Your task to perform on an android device: find snoozed emails in the gmail app Image 0: 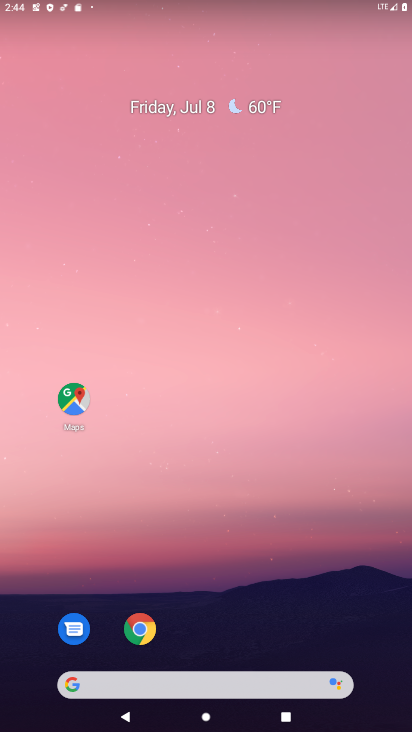
Step 0: drag from (225, 631) to (229, 259)
Your task to perform on an android device: find snoozed emails in the gmail app Image 1: 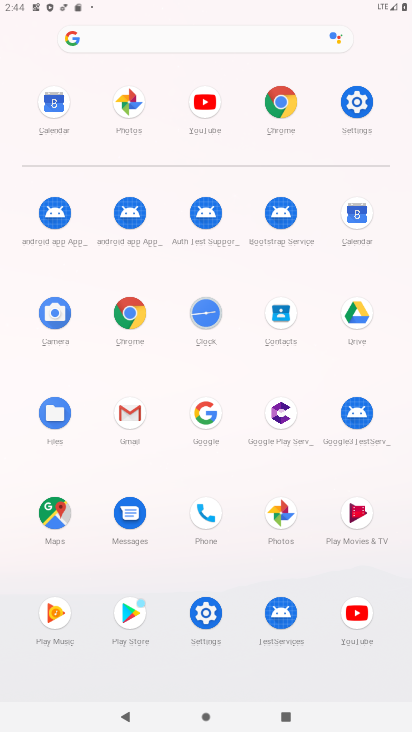
Step 1: click (143, 423)
Your task to perform on an android device: find snoozed emails in the gmail app Image 2: 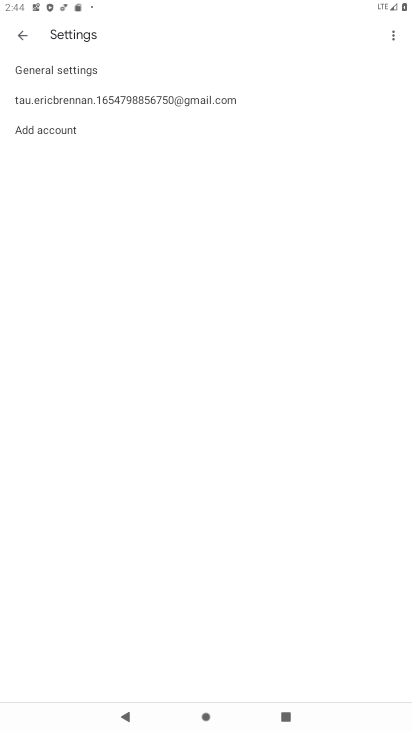
Step 2: click (23, 38)
Your task to perform on an android device: find snoozed emails in the gmail app Image 3: 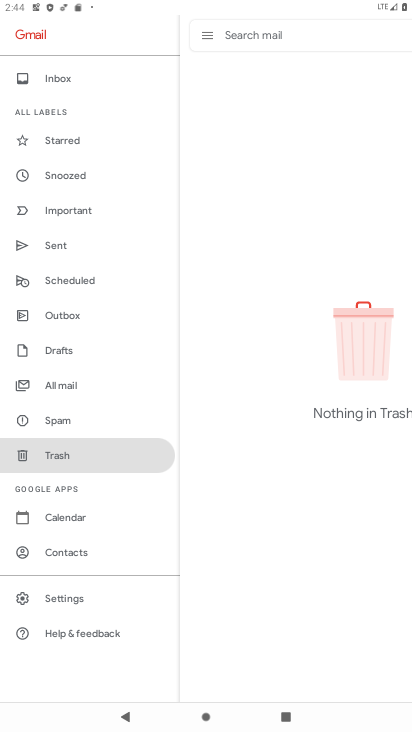
Step 3: click (76, 182)
Your task to perform on an android device: find snoozed emails in the gmail app Image 4: 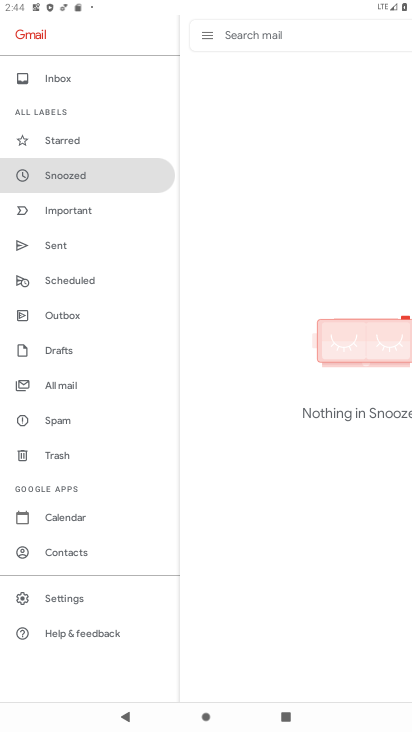
Step 4: task complete